Your task to perform on an android device: open app "Facebook Messenger" (install if not already installed) Image 0: 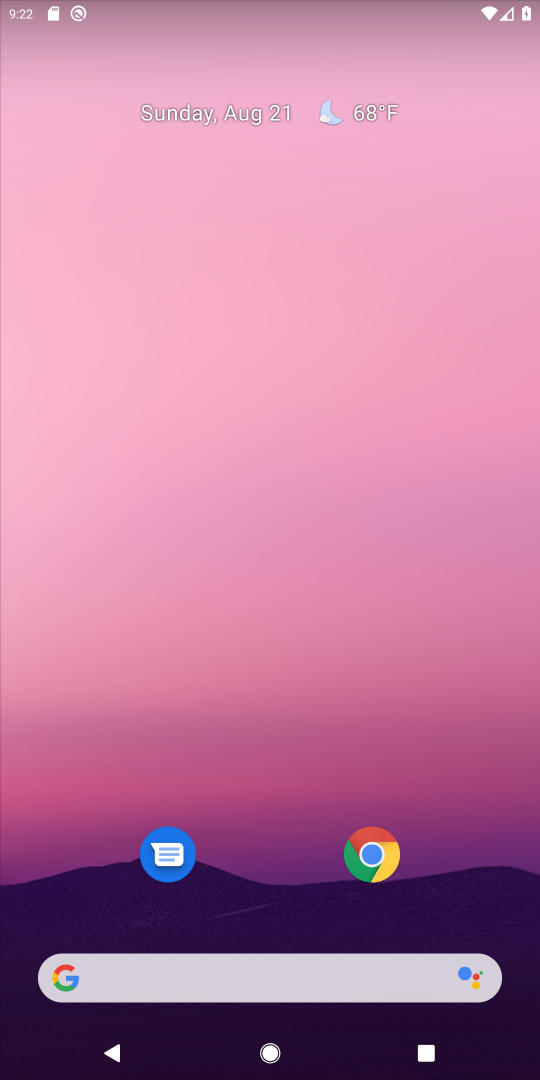
Step 0: drag from (292, 897) to (18, 2)
Your task to perform on an android device: open app "Facebook Messenger" (install if not already installed) Image 1: 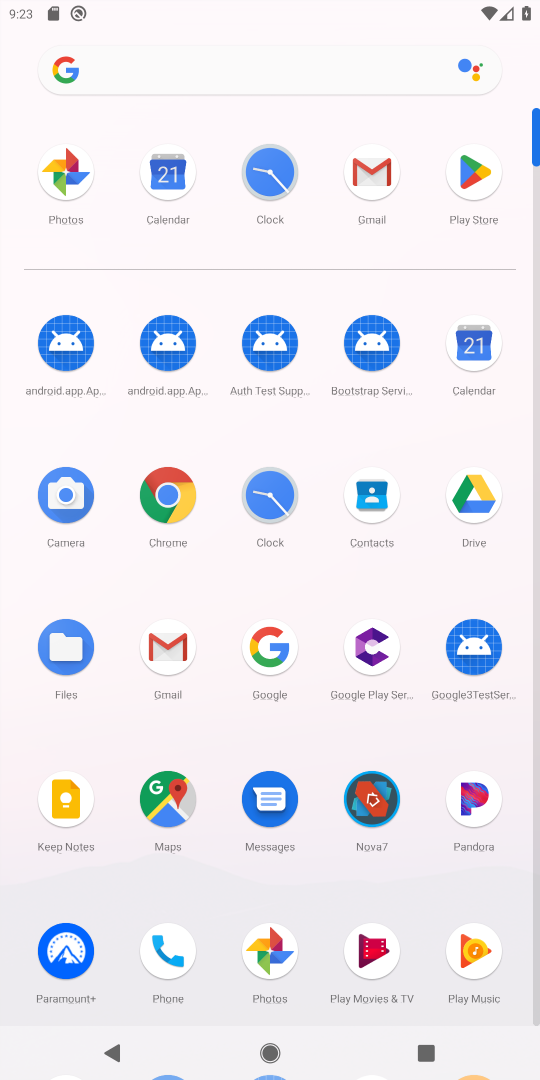
Step 1: click (484, 207)
Your task to perform on an android device: open app "Facebook Messenger" (install if not already installed) Image 2: 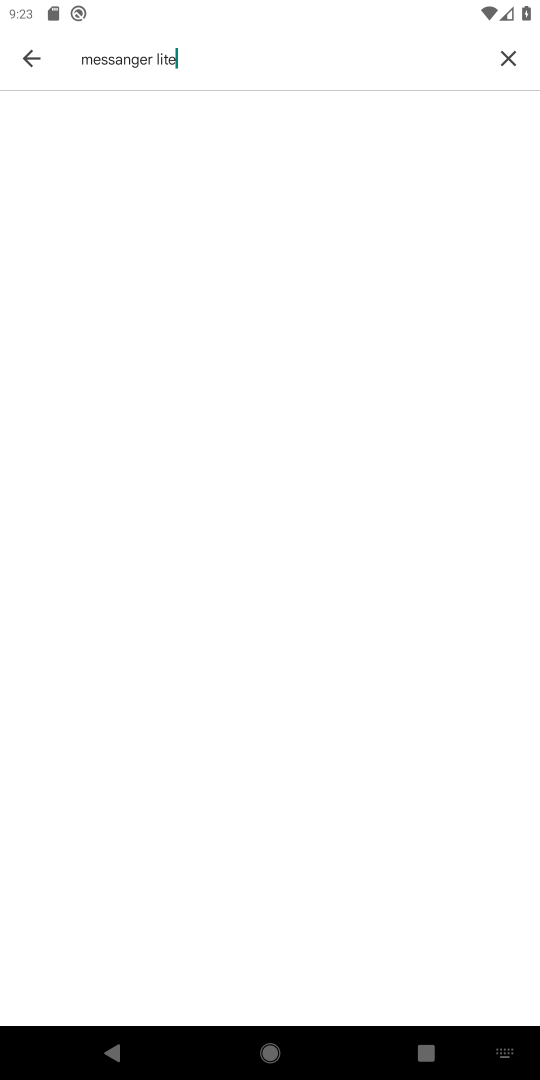
Step 2: click (504, 73)
Your task to perform on an android device: open app "Facebook Messenger" (install if not already installed) Image 3: 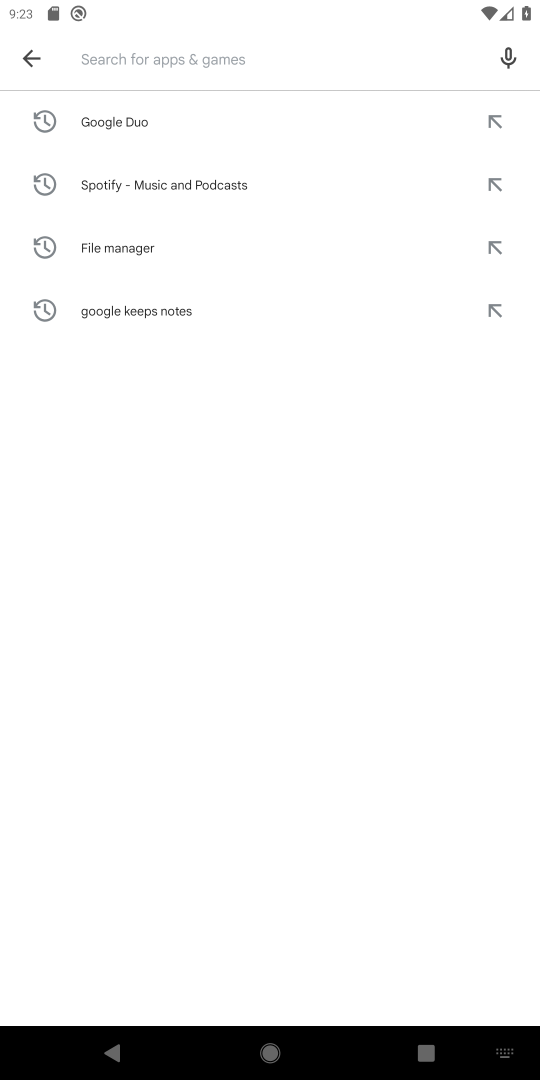
Step 3: type "facebook"
Your task to perform on an android device: open app "Facebook Messenger" (install if not already installed) Image 4: 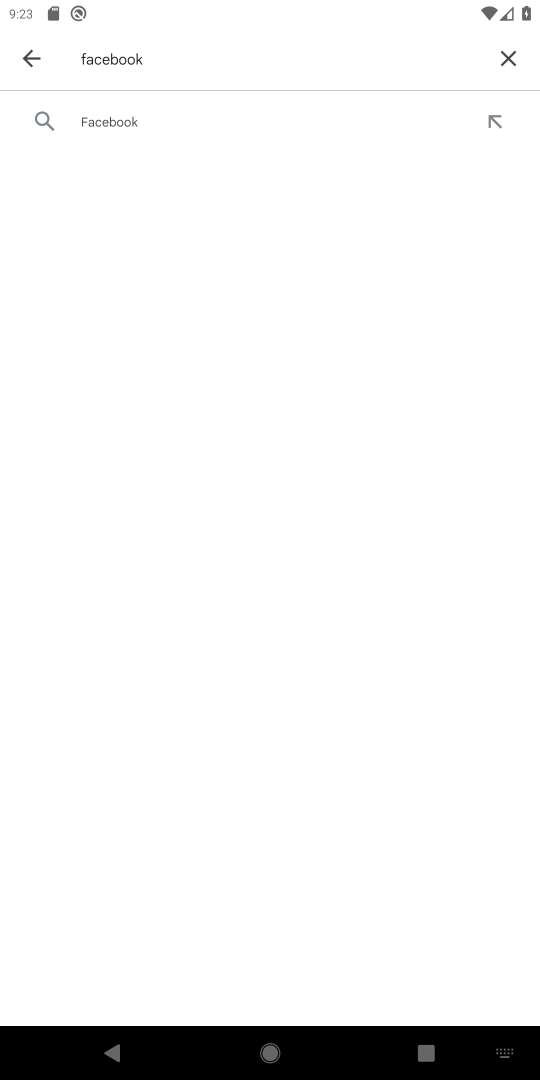
Step 4: click (213, 149)
Your task to perform on an android device: open app "Facebook Messenger" (install if not already installed) Image 5: 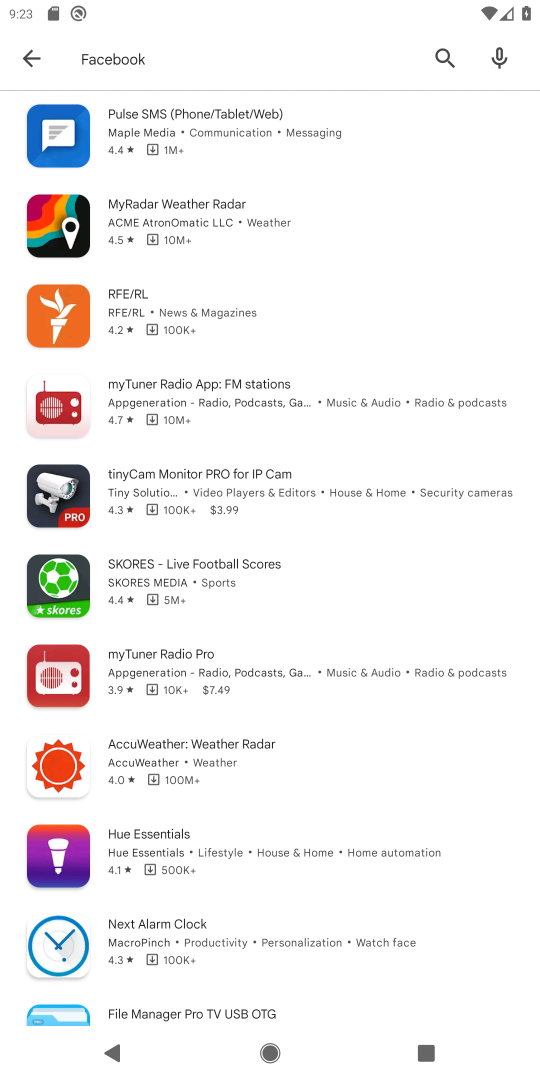
Step 5: task complete